Your task to perform on an android device: Open the Play Movies app and select the watchlist tab. Image 0: 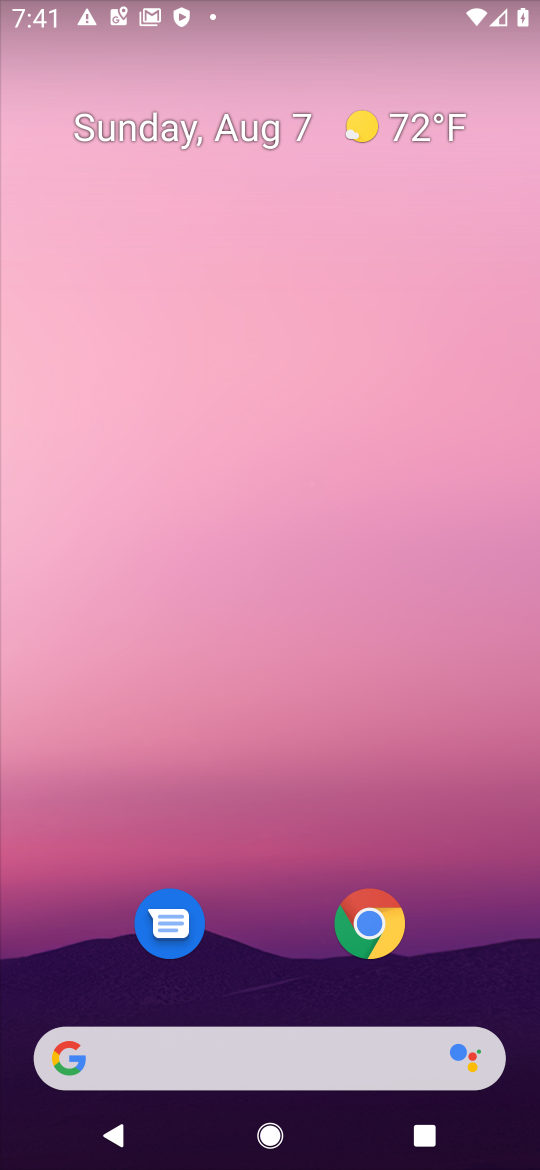
Step 0: drag from (486, 980) to (372, 187)
Your task to perform on an android device: Open the Play Movies app and select the watchlist tab. Image 1: 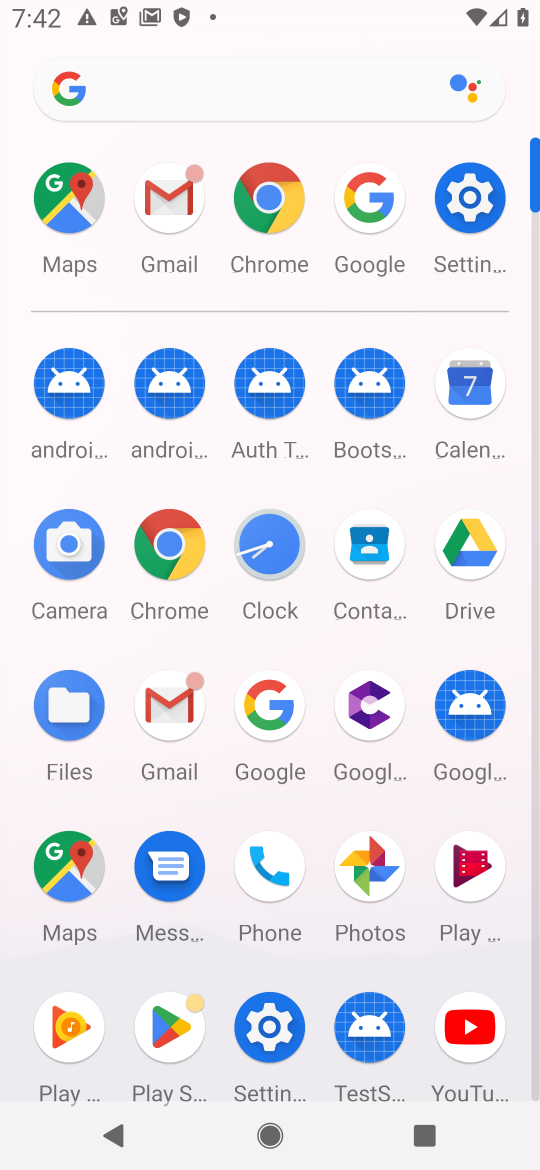
Step 1: click (478, 861)
Your task to perform on an android device: Open the Play Movies app and select the watchlist tab. Image 2: 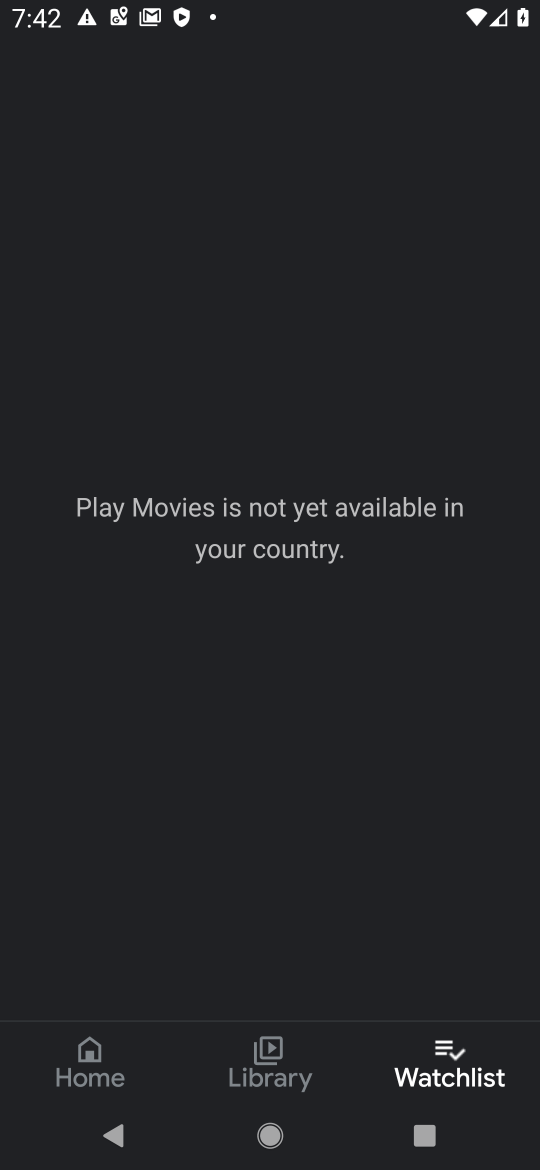
Step 2: task complete